Your task to perform on an android device: open a new tab in the chrome app Image 0: 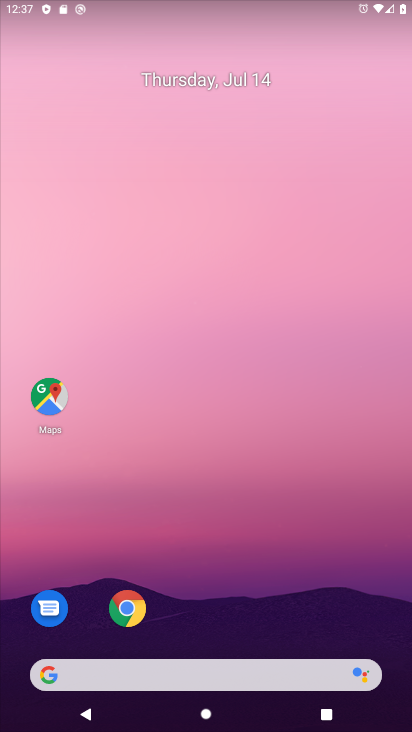
Step 0: click (129, 609)
Your task to perform on an android device: open a new tab in the chrome app Image 1: 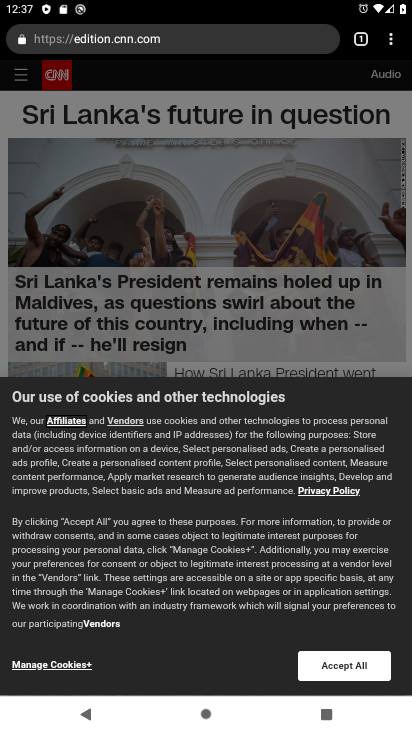
Step 1: click (391, 41)
Your task to perform on an android device: open a new tab in the chrome app Image 2: 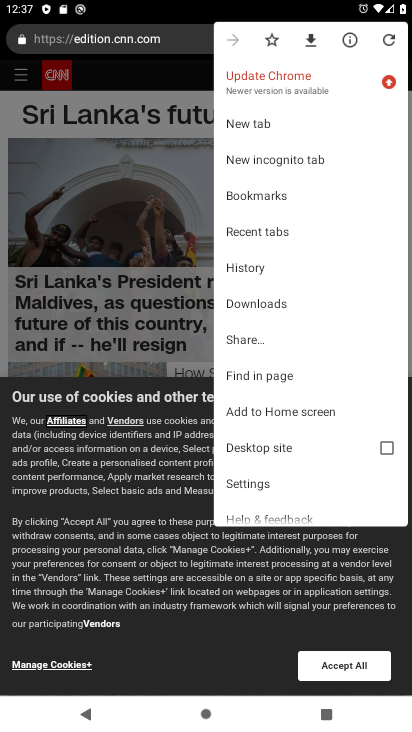
Step 2: click (271, 126)
Your task to perform on an android device: open a new tab in the chrome app Image 3: 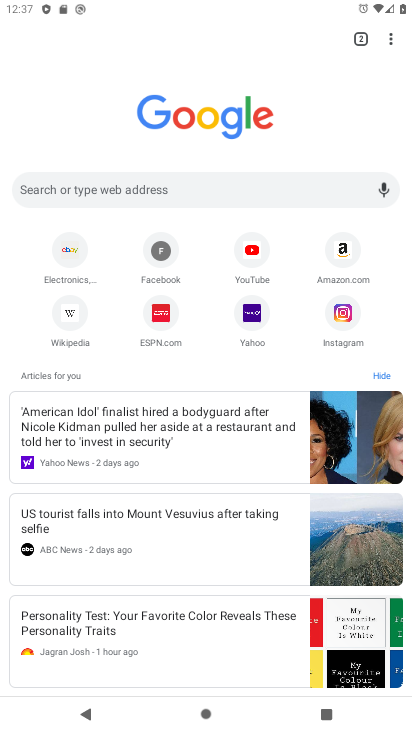
Step 3: task complete